Your task to perform on an android device: open sync settings in chrome Image 0: 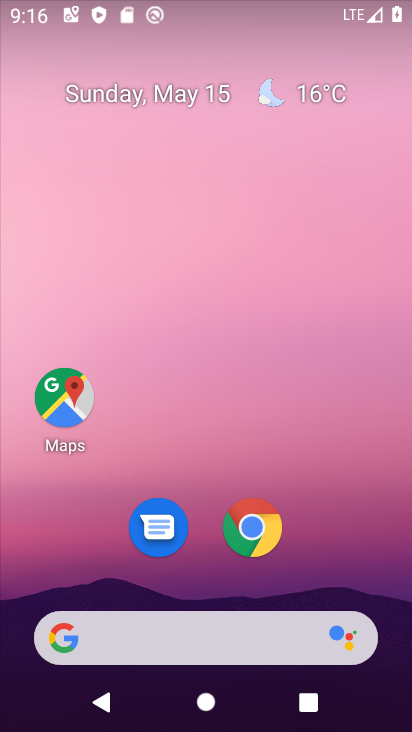
Step 0: click (260, 538)
Your task to perform on an android device: open sync settings in chrome Image 1: 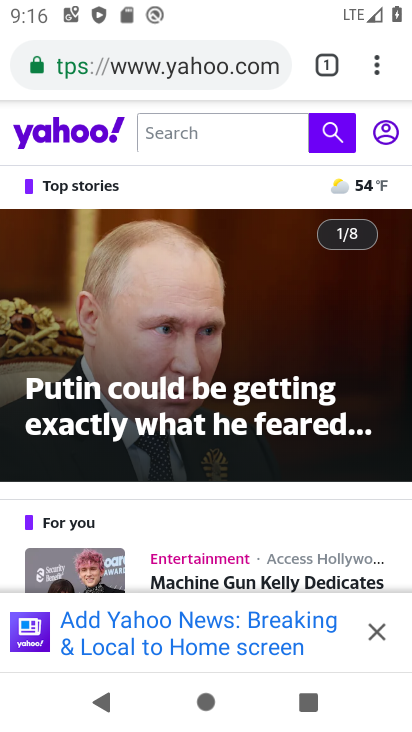
Step 1: click (374, 60)
Your task to perform on an android device: open sync settings in chrome Image 2: 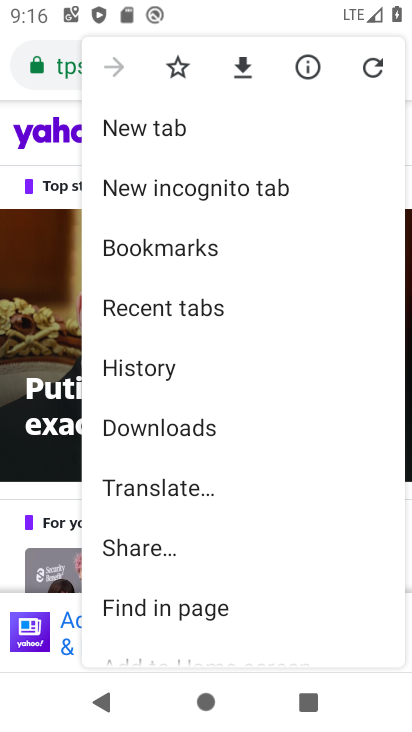
Step 2: drag from (251, 528) to (283, 171)
Your task to perform on an android device: open sync settings in chrome Image 3: 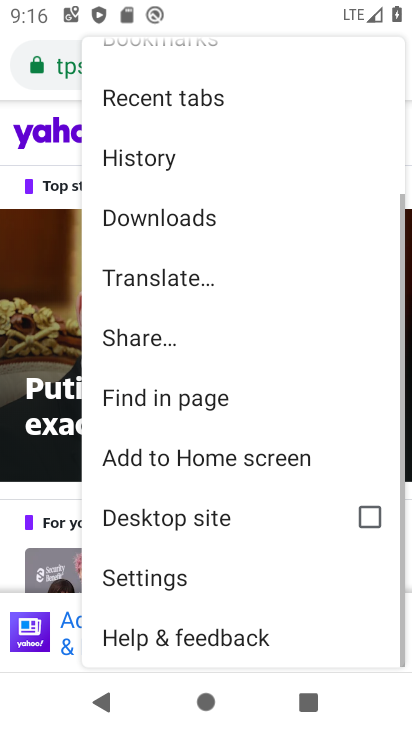
Step 3: click (142, 579)
Your task to perform on an android device: open sync settings in chrome Image 4: 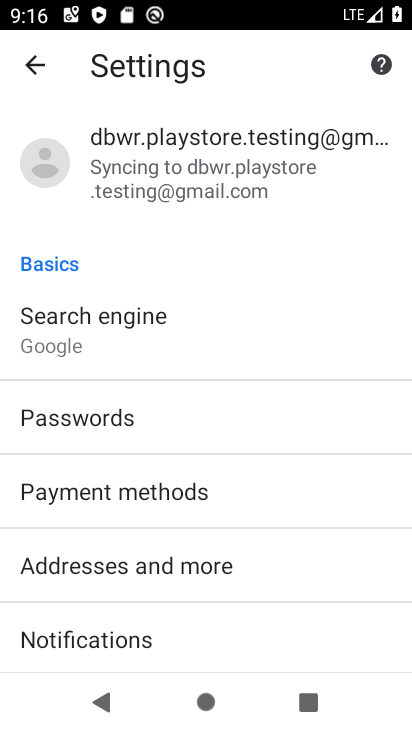
Step 4: click (178, 170)
Your task to perform on an android device: open sync settings in chrome Image 5: 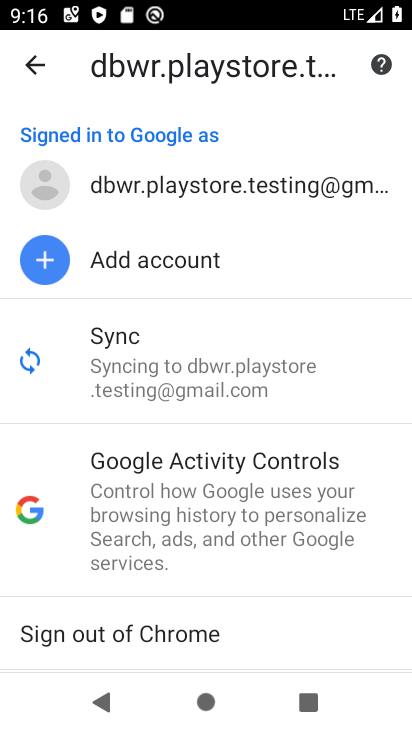
Step 5: click (150, 356)
Your task to perform on an android device: open sync settings in chrome Image 6: 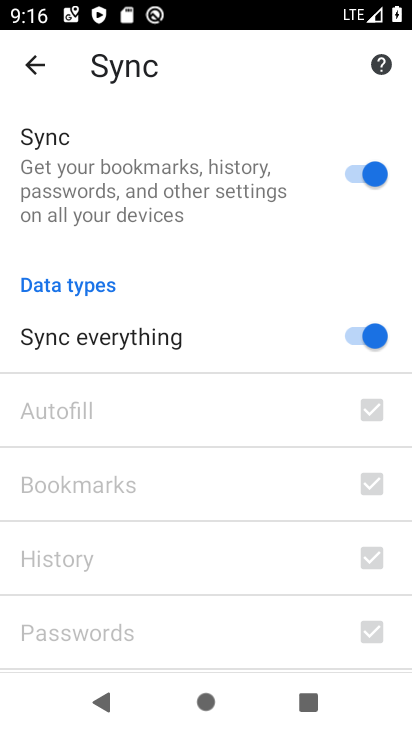
Step 6: task complete